Your task to perform on an android device: see sites visited before in the chrome app Image 0: 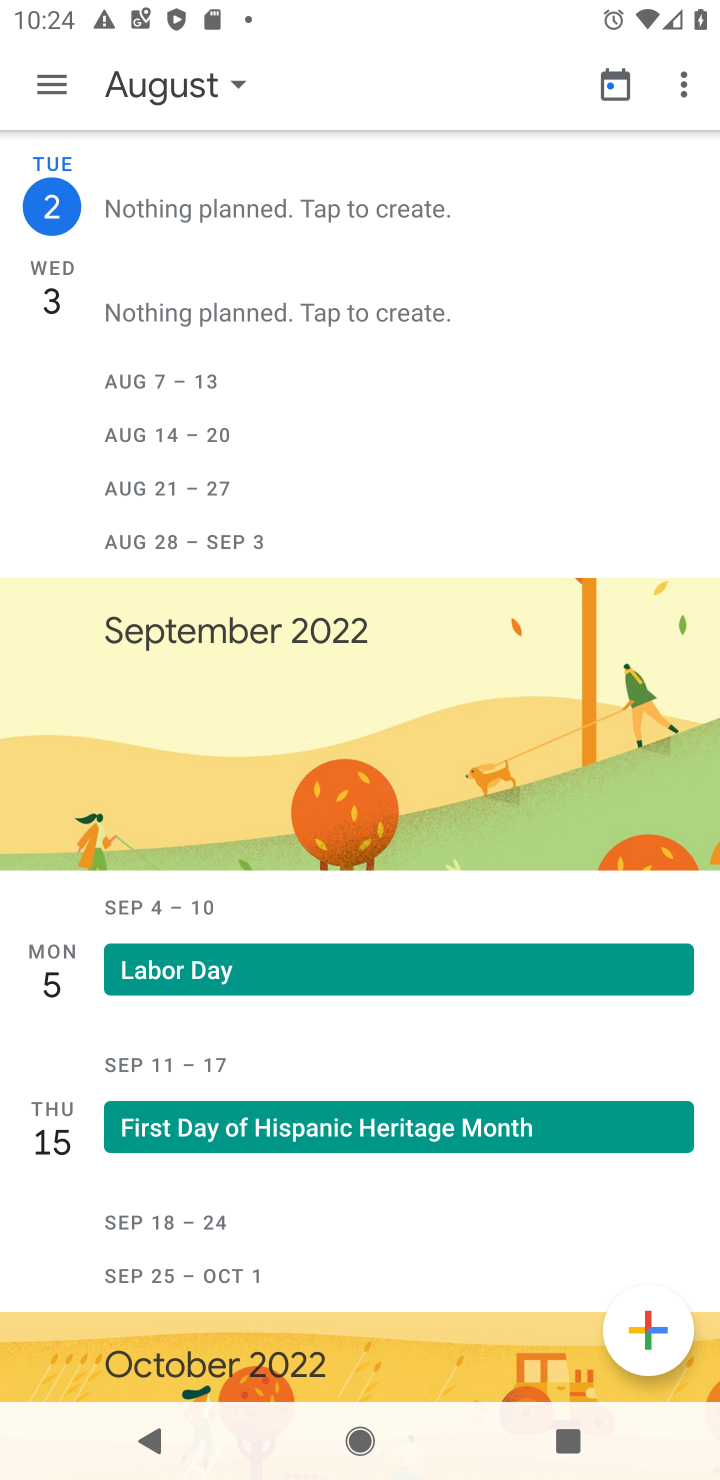
Step 0: press home button
Your task to perform on an android device: see sites visited before in the chrome app Image 1: 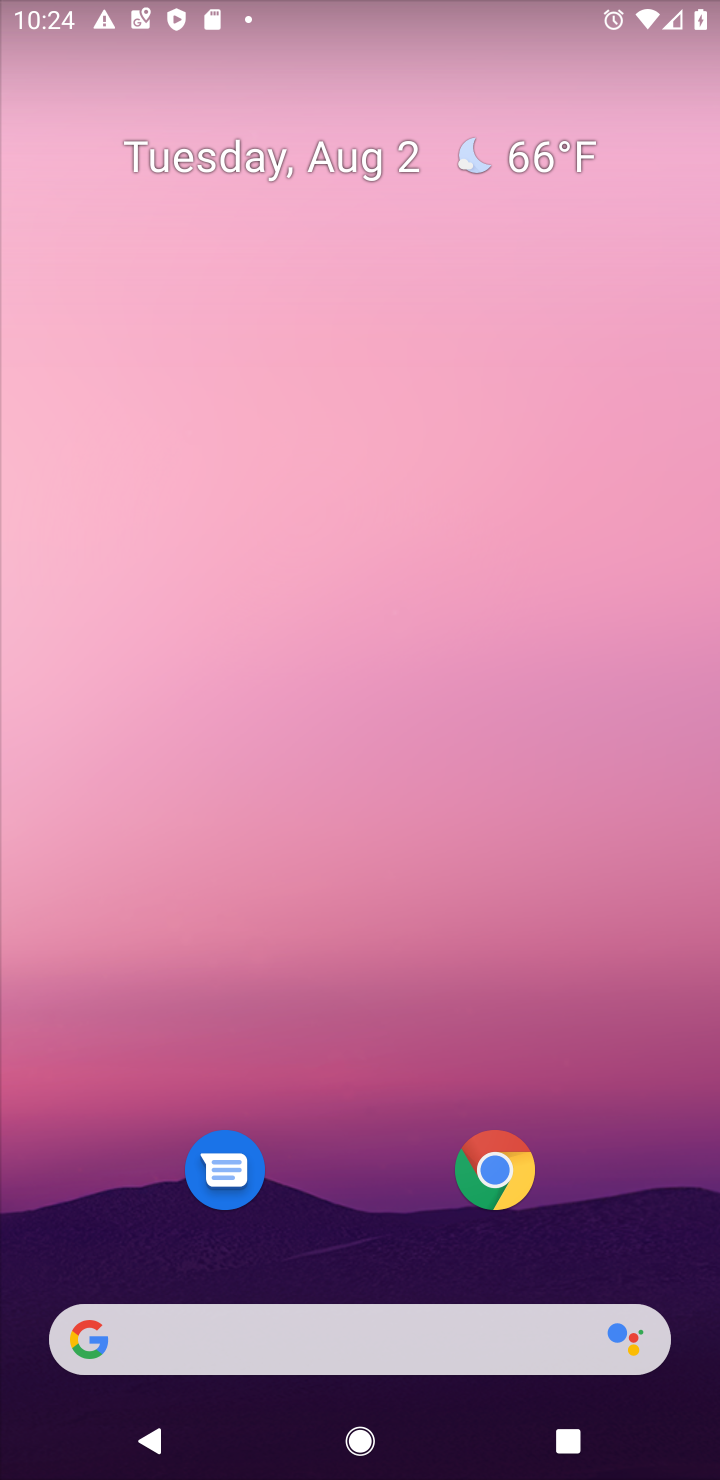
Step 1: click (484, 1159)
Your task to perform on an android device: see sites visited before in the chrome app Image 2: 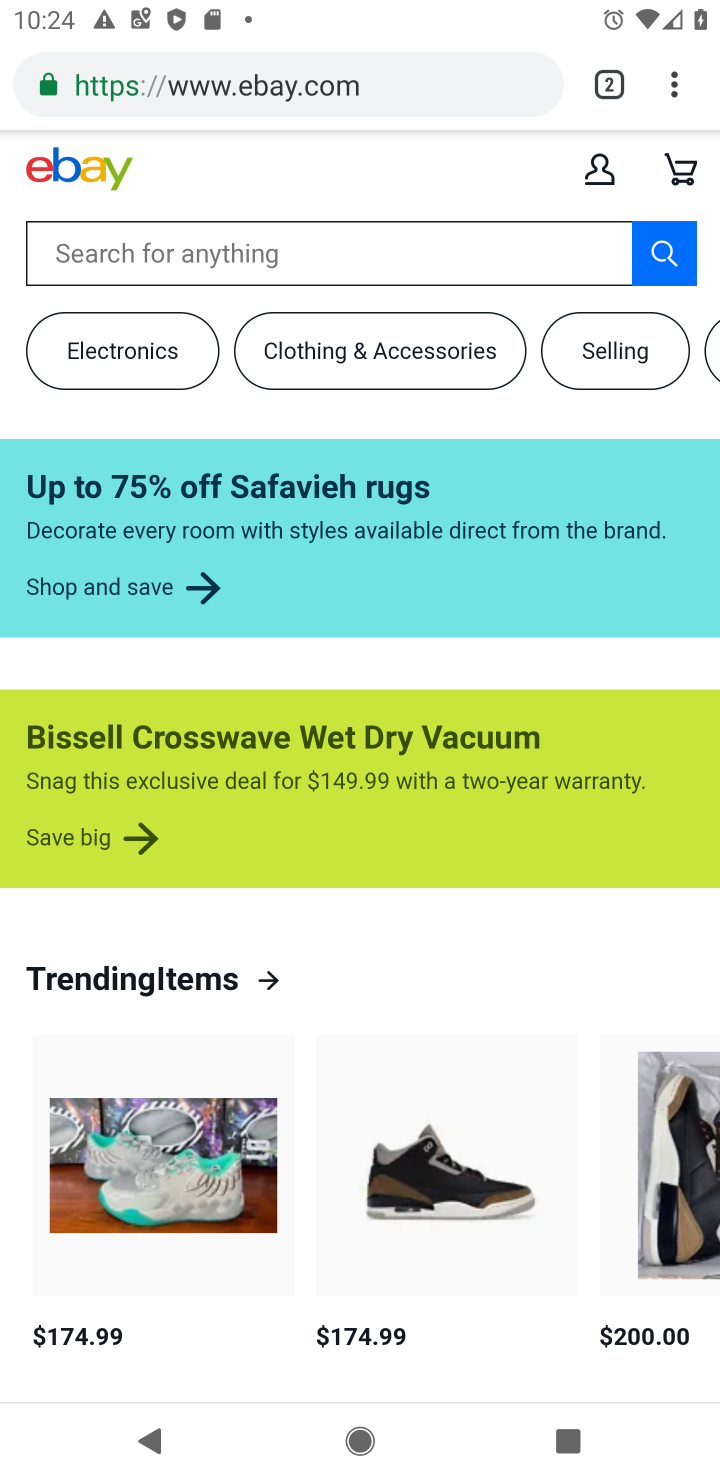
Step 2: click (668, 96)
Your task to perform on an android device: see sites visited before in the chrome app Image 3: 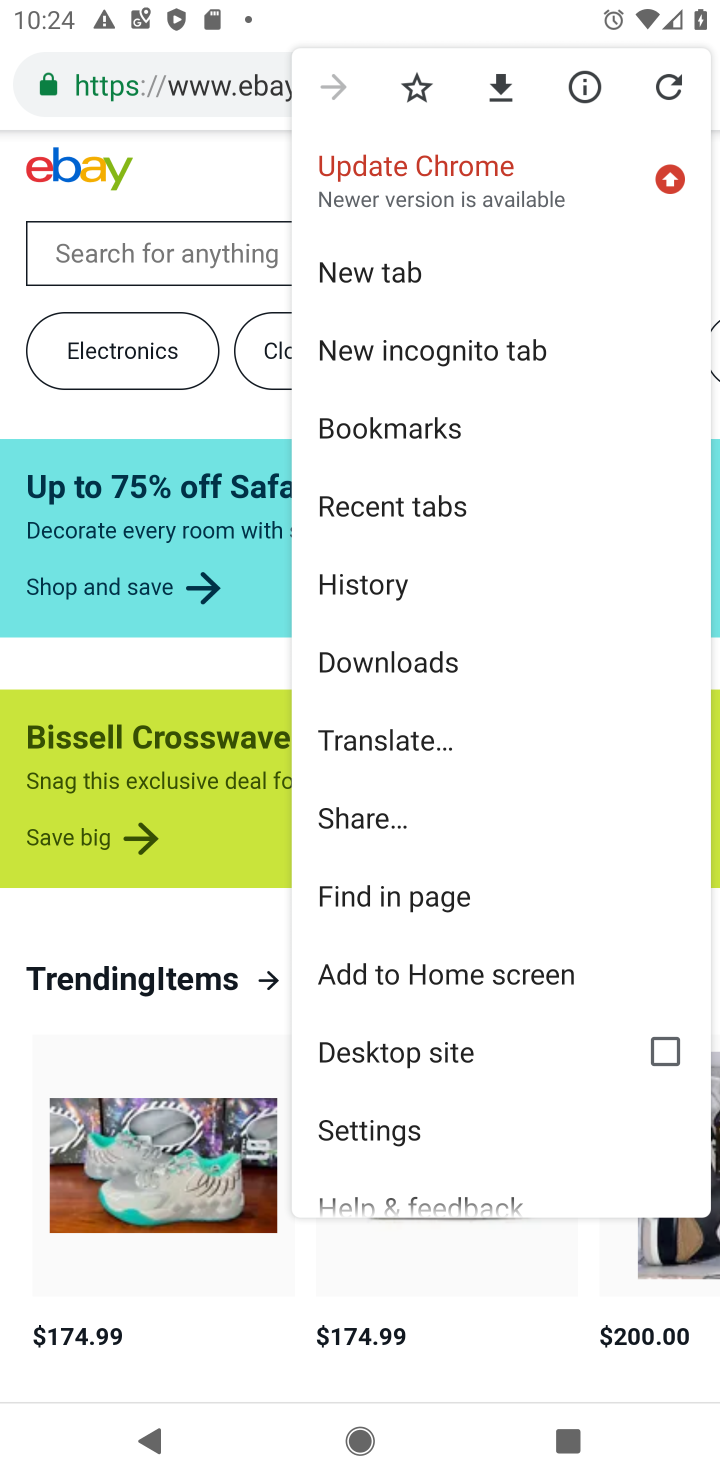
Step 3: click (385, 579)
Your task to perform on an android device: see sites visited before in the chrome app Image 4: 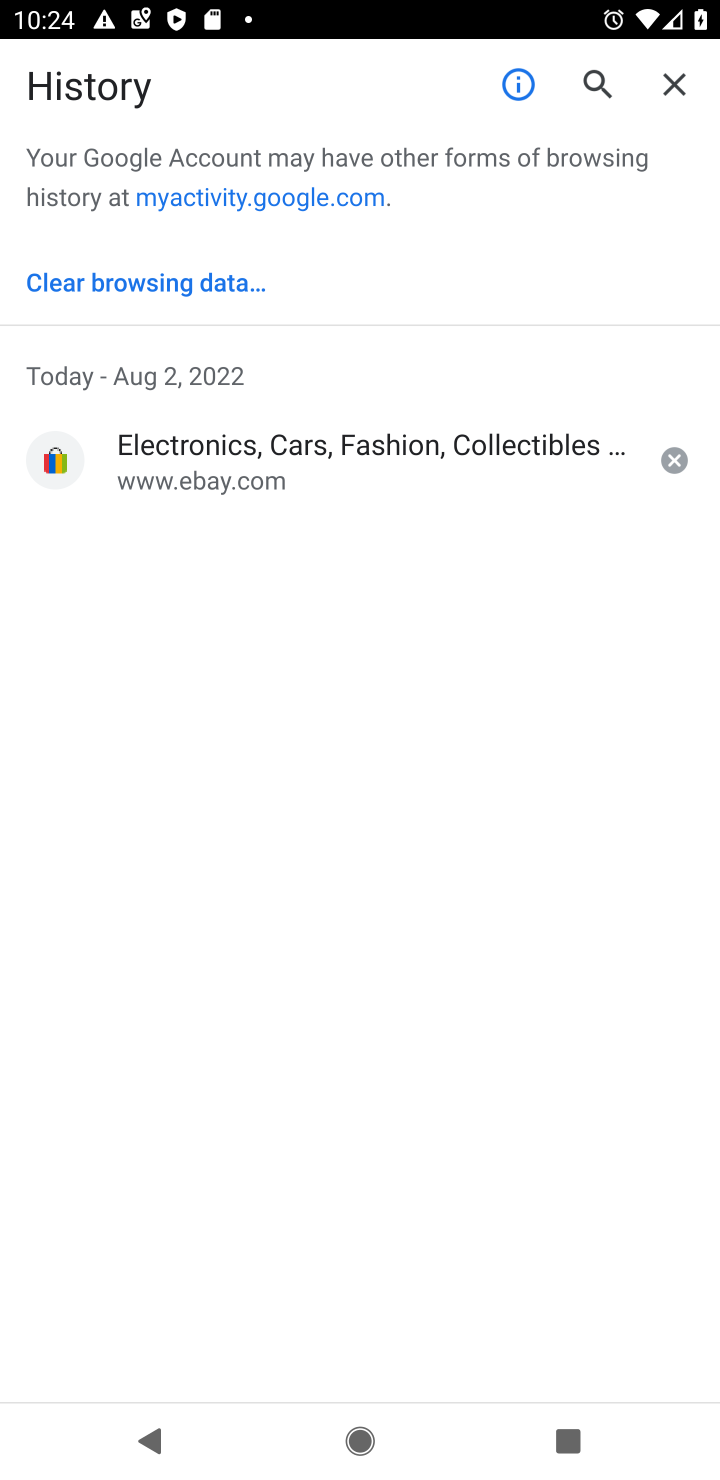
Step 4: task complete